Your task to perform on an android device: check storage Image 0: 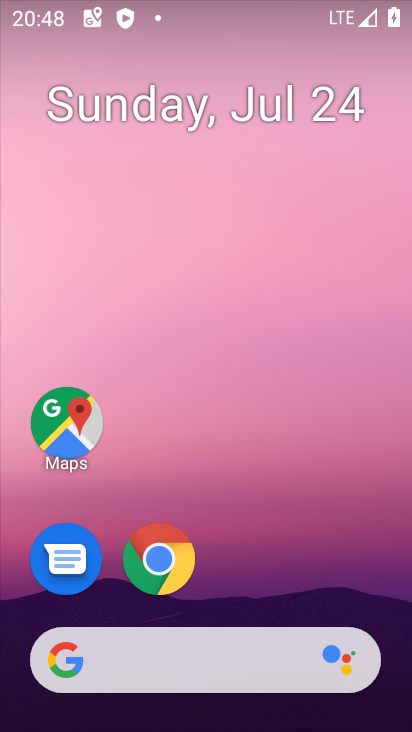
Step 0: press home button
Your task to perform on an android device: check storage Image 1: 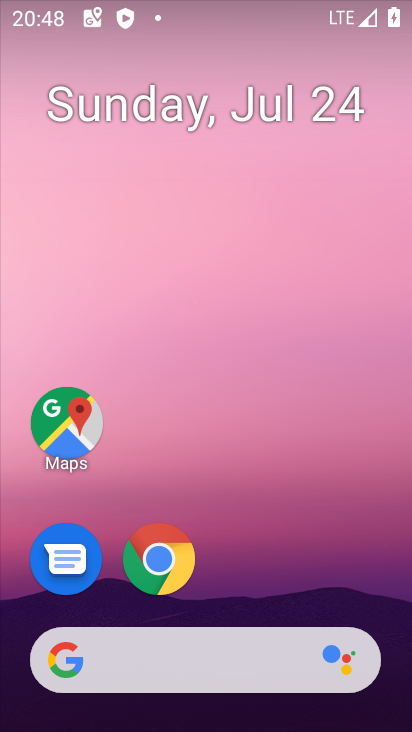
Step 1: drag from (358, 578) to (355, 84)
Your task to perform on an android device: check storage Image 2: 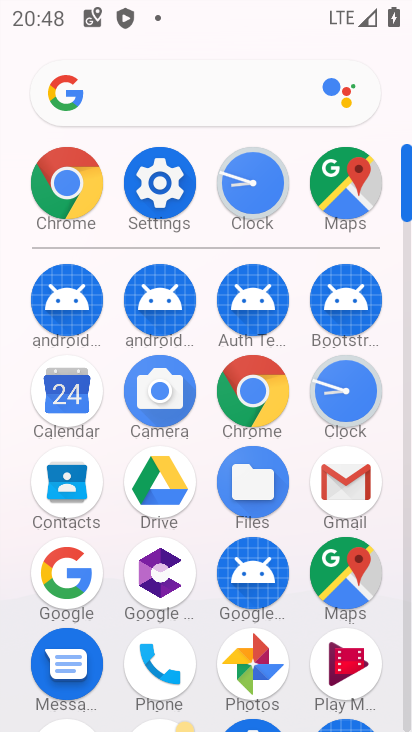
Step 2: click (168, 187)
Your task to perform on an android device: check storage Image 3: 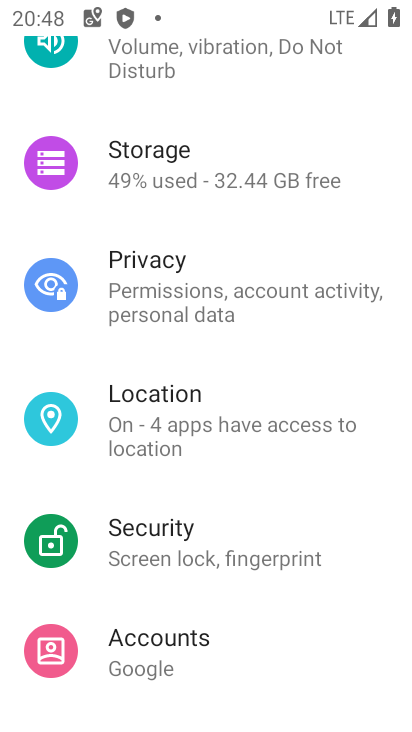
Step 3: drag from (343, 224) to (354, 341)
Your task to perform on an android device: check storage Image 4: 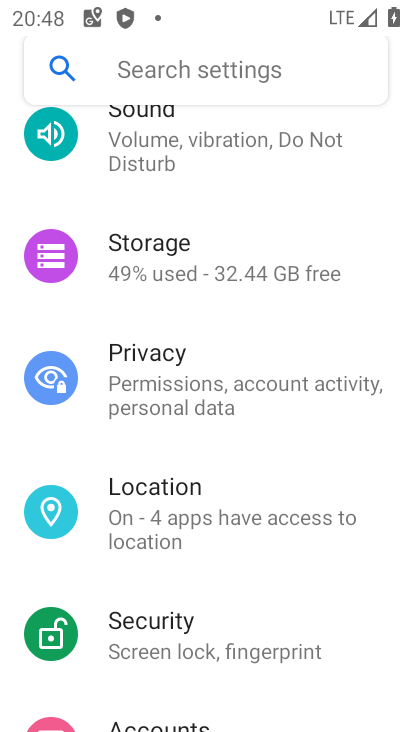
Step 4: drag from (379, 173) to (382, 310)
Your task to perform on an android device: check storage Image 5: 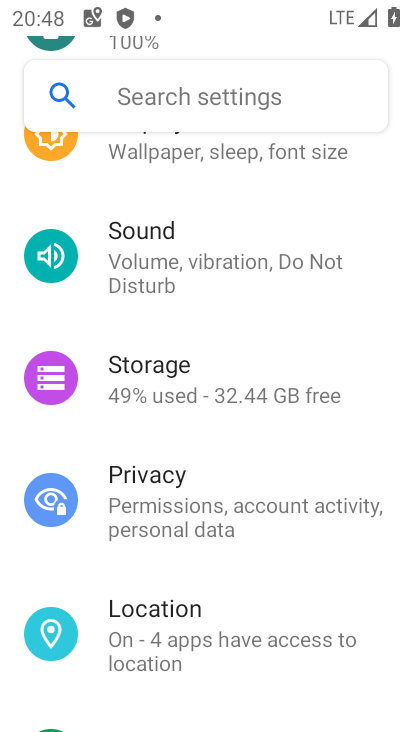
Step 5: drag from (376, 168) to (373, 310)
Your task to perform on an android device: check storage Image 6: 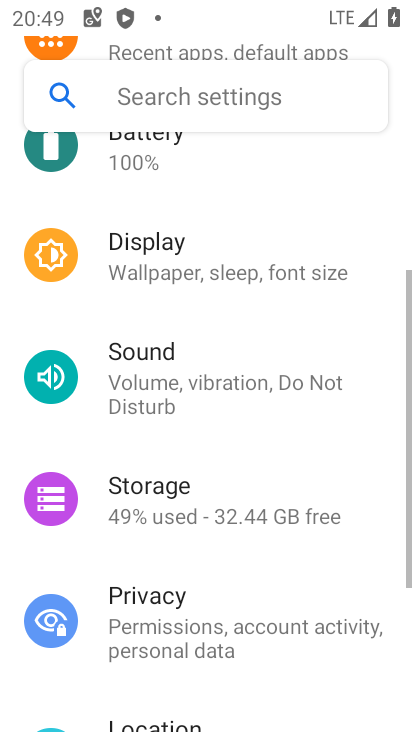
Step 6: drag from (372, 186) to (376, 339)
Your task to perform on an android device: check storage Image 7: 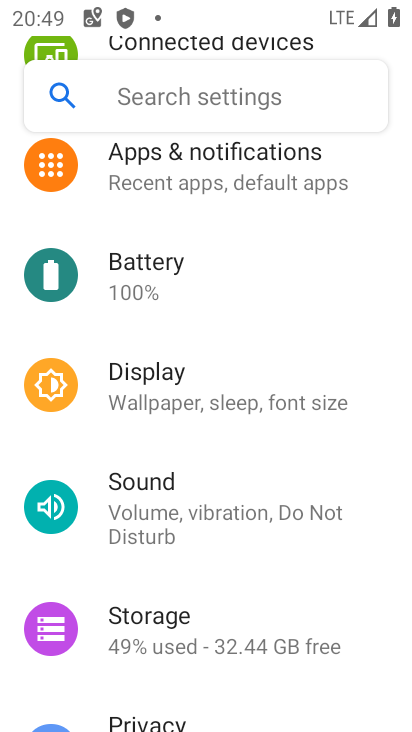
Step 7: click (219, 622)
Your task to perform on an android device: check storage Image 8: 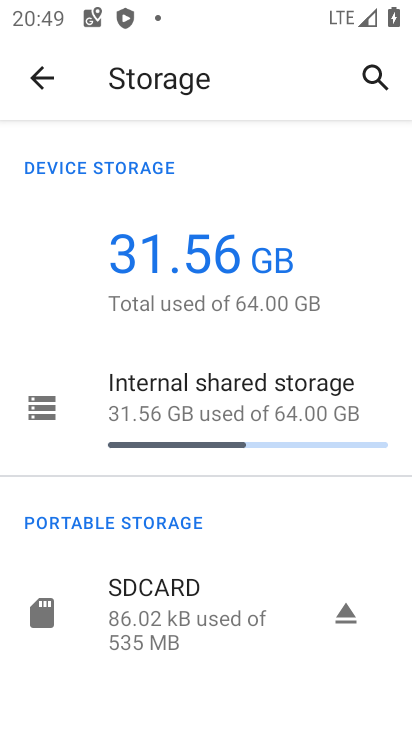
Step 8: task complete